Your task to perform on an android device: Open settings Image 0: 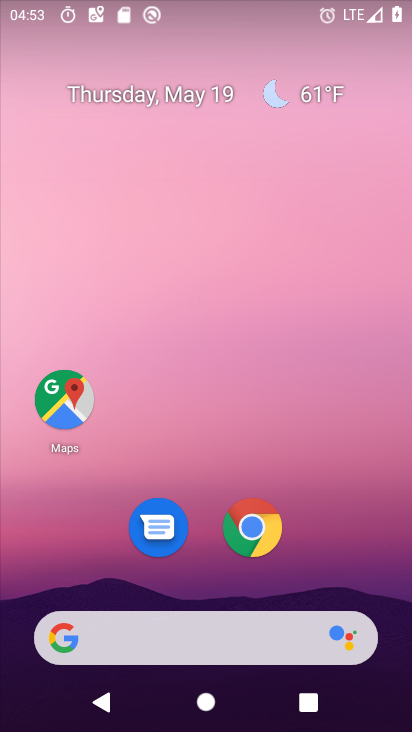
Step 0: drag from (234, 504) to (293, 59)
Your task to perform on an android device: Open settings Image 1: 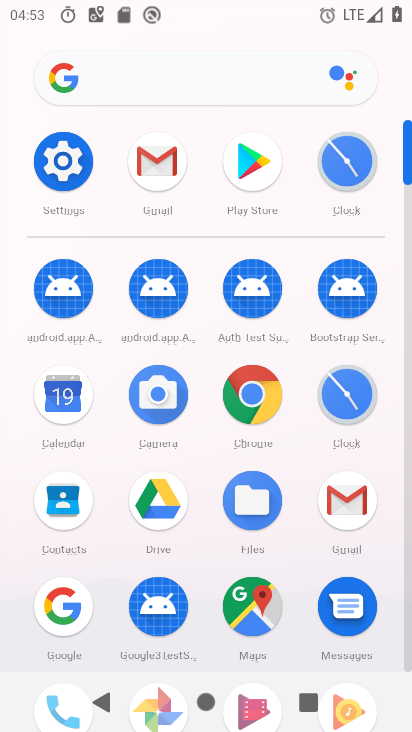
Step 1: click (74, 166)
Your task to perform on an android device: Open settings Image 2: 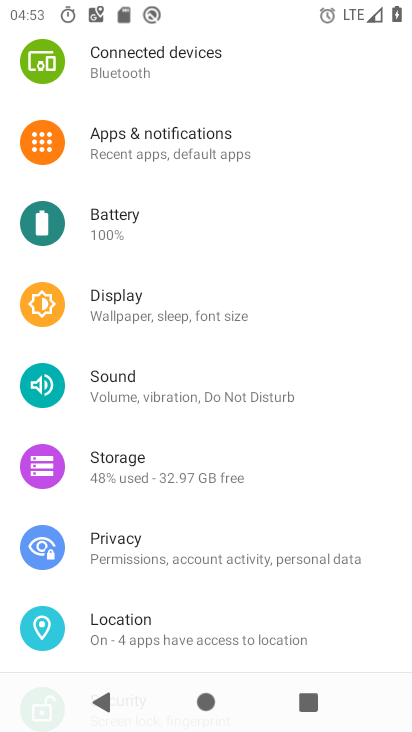
Step 2: task complete